Your task to perform on an android device: Open Google Chrome and open the bookmarks view Image 0: 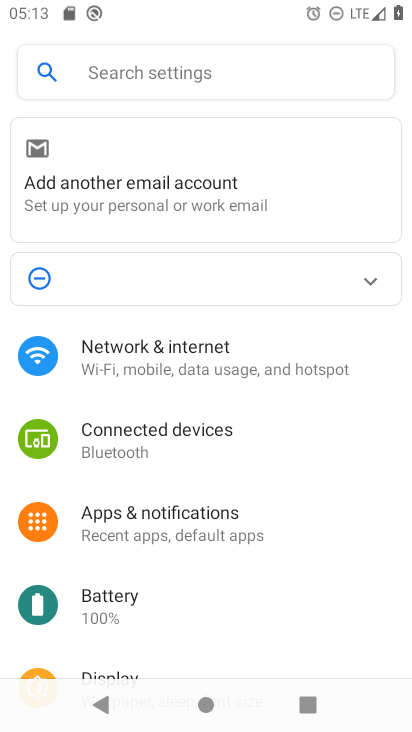
Step 0: press home button
Your task to perform on an android device: Open Google Chrome and open the bookmarks view Image 1: 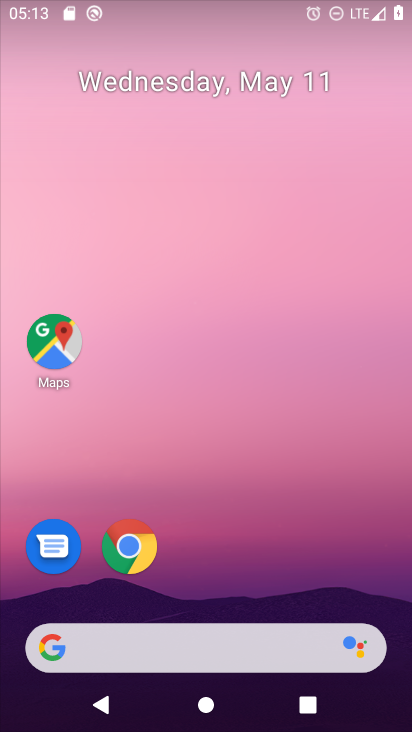
Step 1: drag from (188, 693) to (221, 77)
Your task to perform on an android device: Open Google Chrome and open the bookmarks view Image 2: 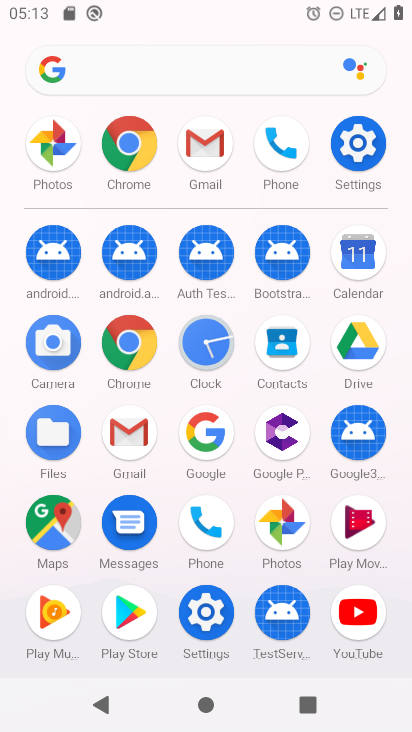
Step 2: click (145, 342)
Your task to perform on an android device: Open Google Chrome and open the bookmarks view Image 3: 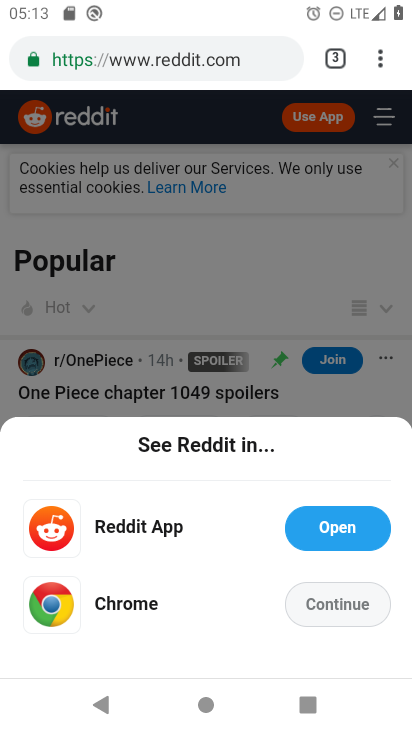
Step 3: task complete